Your task to perform on an android device: add a label to a message in the gmail app Image 0: 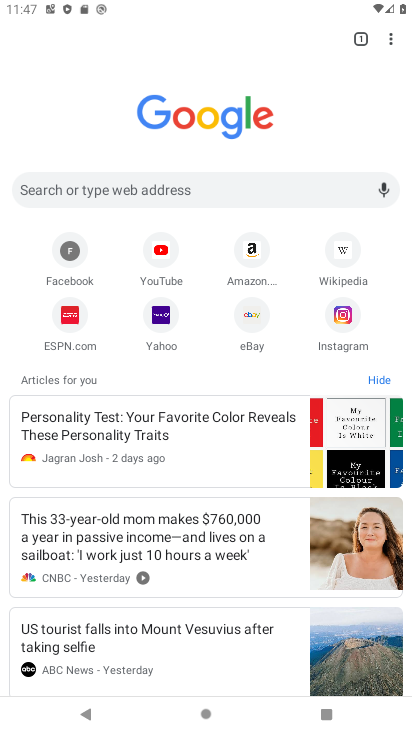
Step 0: press home button
Your task to perform on an android device: add a label to a message in the gmail app Image 1: 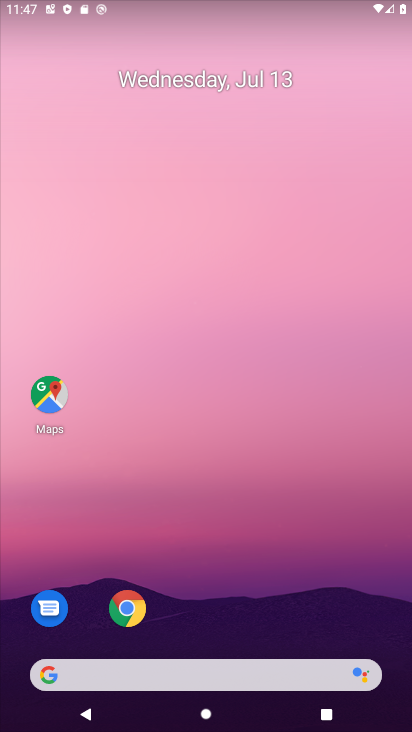
Step 1: drag from (146, 715) to (319, 5)
Your task to perform on an android device: add a label to a message in the gmail app Image 2: 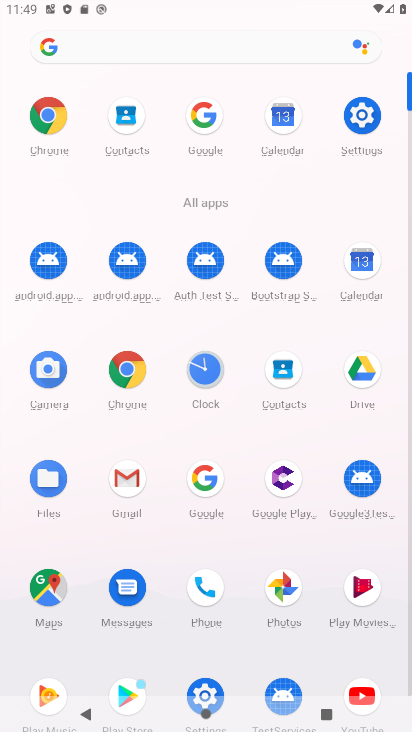
Step 2: click (125, 479)
Your task to perform on an android device: add a label to a message in the gmail app Image 3: 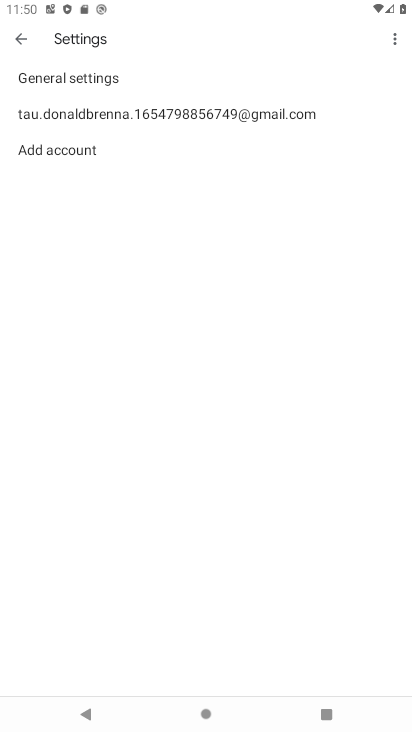
Step 3: click (181, 114)
Your task to perform on an android device: add a label to a message in the gmail app Image 4: 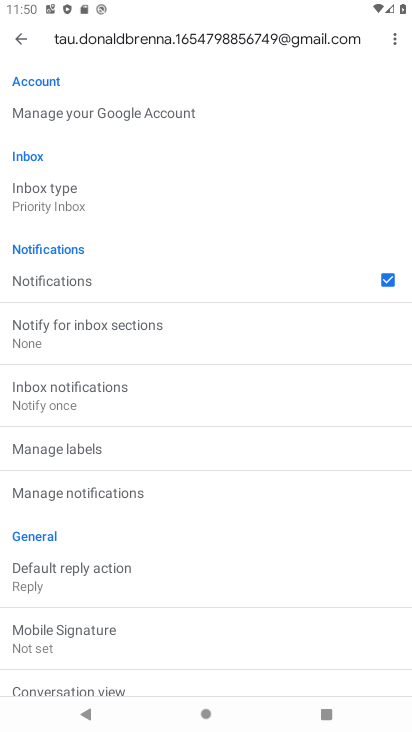
Step 4: click (19, 41)
Your task to perform on an android device: add a label to a message in the gmail app Image 5: 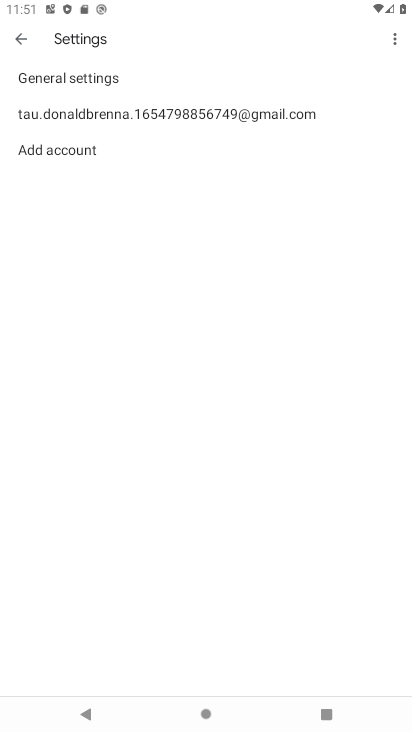
Step 5: click (25, 40)
Your task to perform on an android device: add a label to a message in the gmail app Image 6: 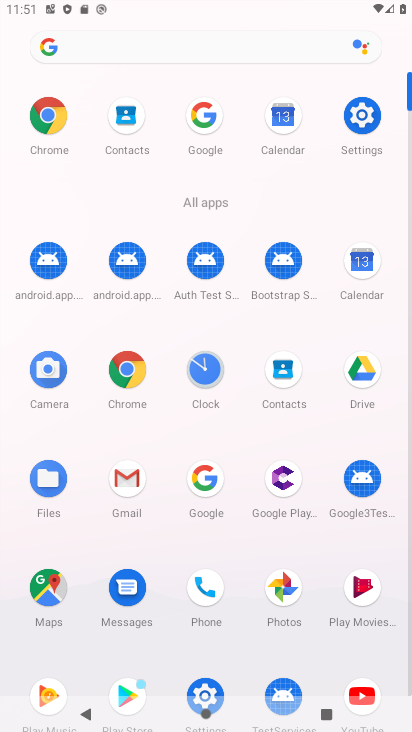
Step 6: click (132, 477)
Your task to perform on an android device: add a label to a message in the gmail app Image 7: 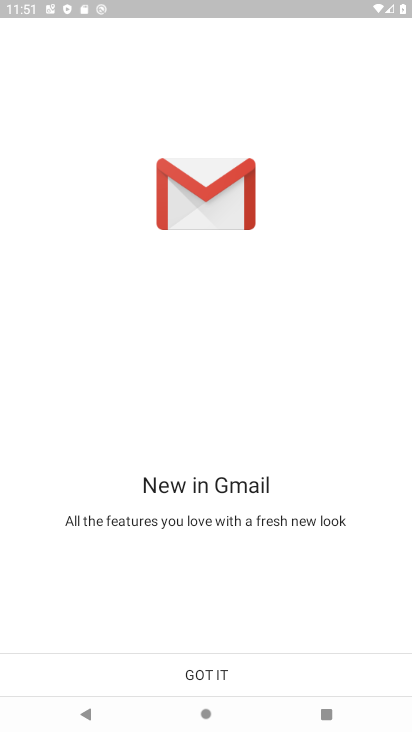
Step 7: click (214, 677)
Your task to perform on an android device: add a label to a message in the gmail app Image 8: 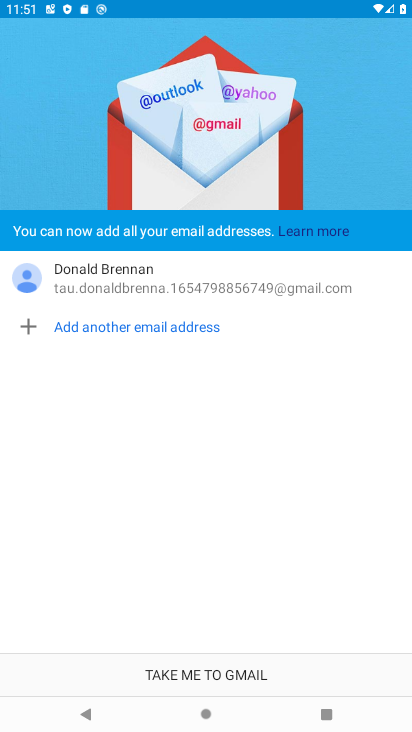
Step 8: click (231, 678)
Your task to perform on an android device: add a label to a message in the gmail app Image 9: 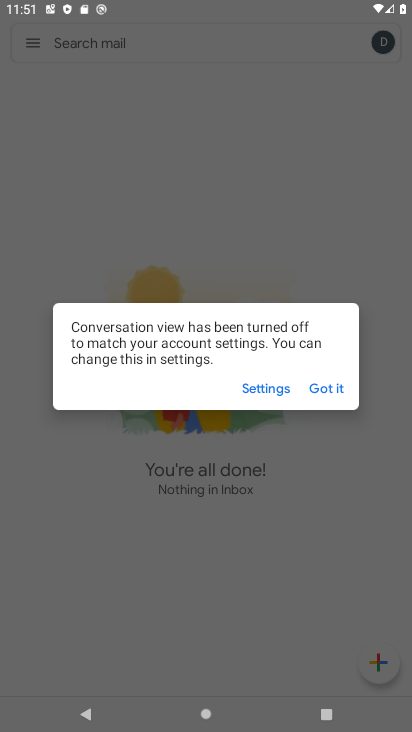
Step 9: click (222, 582)
Your task to perform on an android device: add a label to a message in the gmail app Image 10: 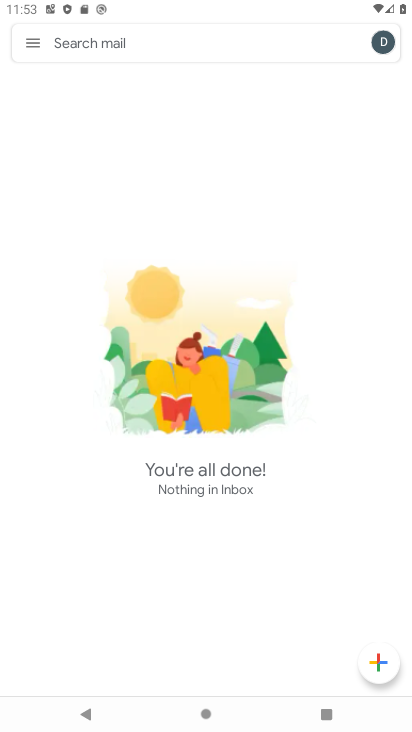
Step 10: task complete